Your task to perform on an android device: Show me the alarms in the clock app Image 0: 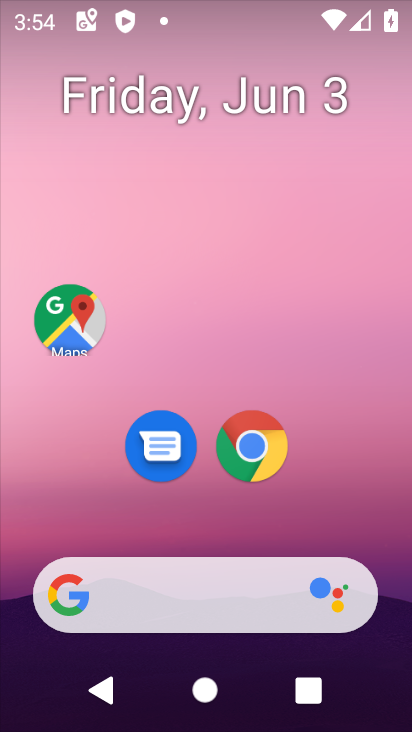
Step 0: task complete